Your task to perform on an android device: Go to Maps Image 0: 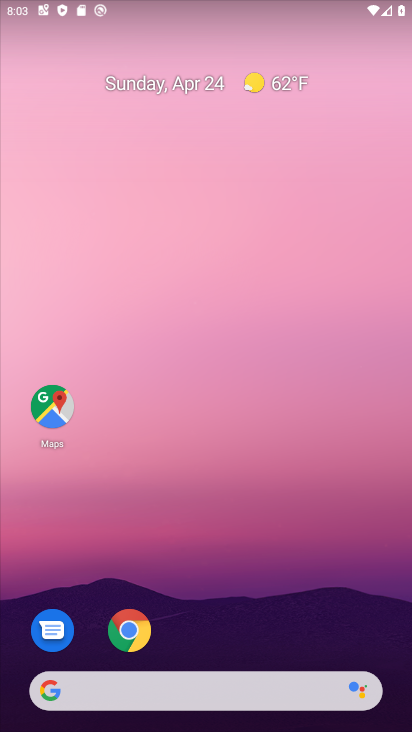
Step 0: drag from (308, 635) to (283, 39)
Your task to perform on an android device: Go to Maps Image 1: 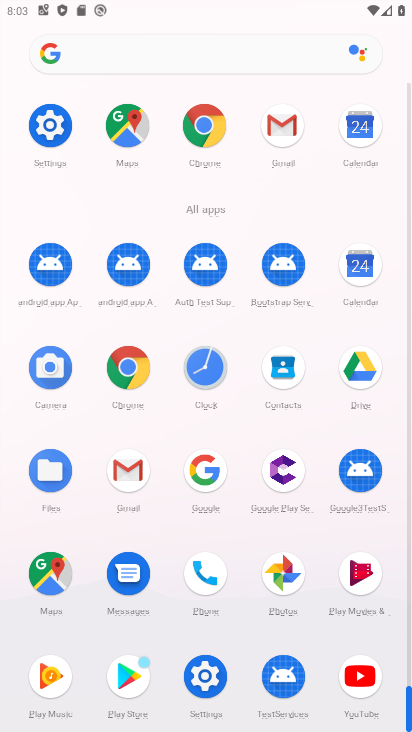
Step 1: click (127, 122)
Your task to perform on an android device: Go to Maps Image 2: 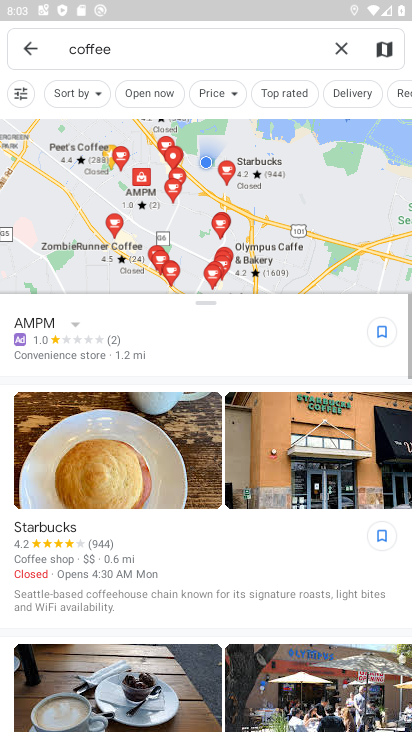
Step 2: click (333, 45)
Your task to perform on an android device: Go to Maps Image 3: 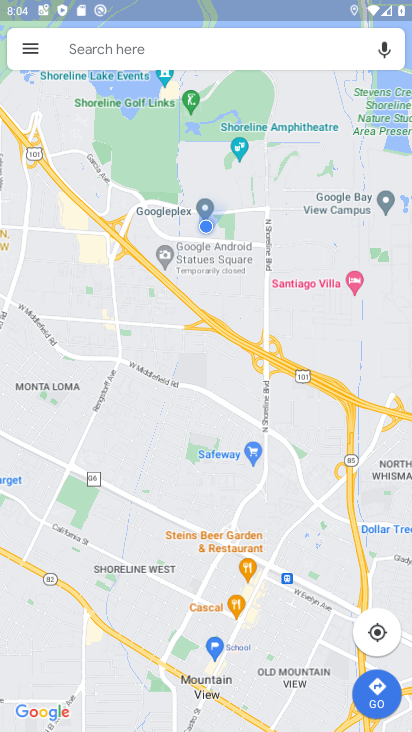
Step 3: task complete